Your task to perform on an android device: Open Google Maps Image 0: 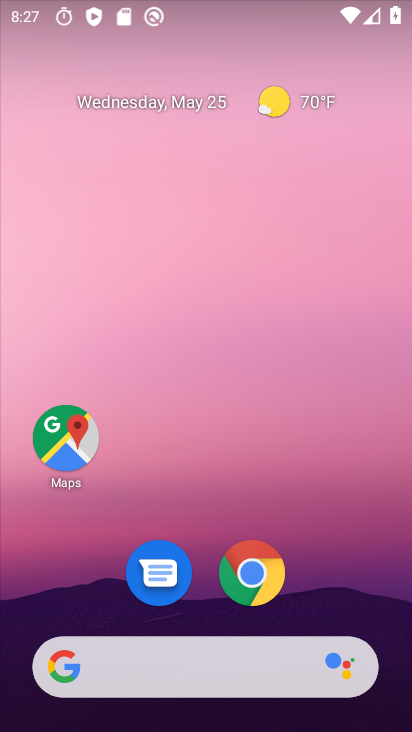
Step 0: click (67, 456)
Your task to perform on an android device: Open Google Maps Image 1: 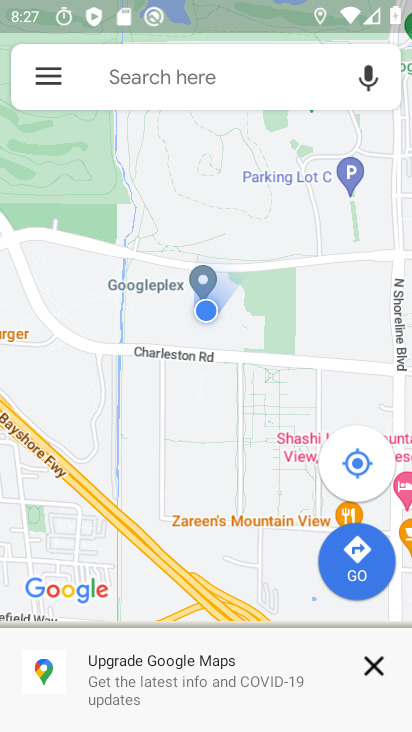
Step 1: task complete